Your task to perform on an android device: empty trash in google photos Image 0: 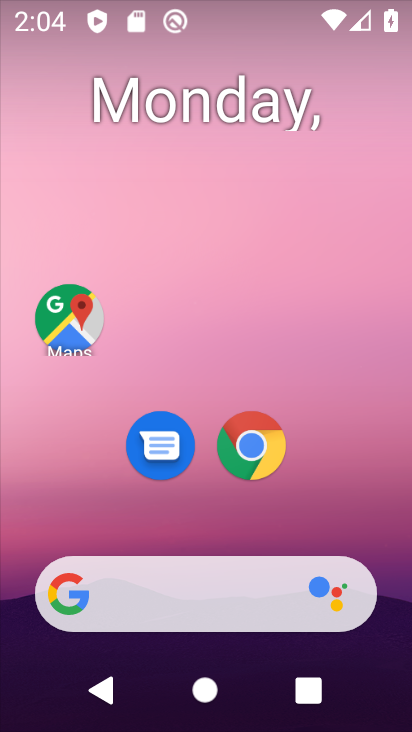
Step 0: drag from (359, 507) to (272, 23)
Your task to perform on an android device: empty trash in google photos Image 1: 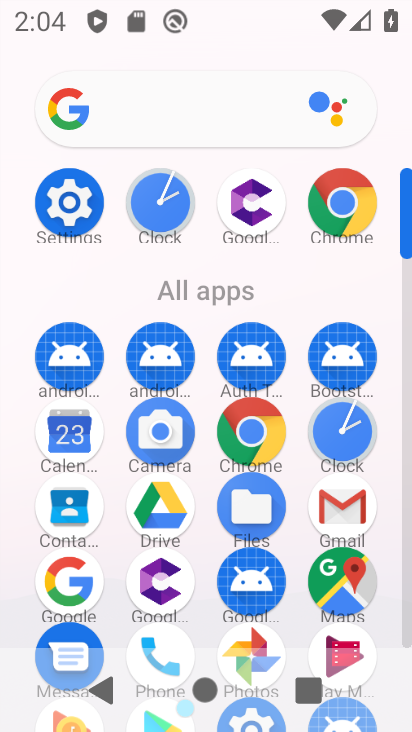
Step 1: drag from (15, 606) to (35, 189)
Your task to perform on an android device: empty trash in google photos Image 2: 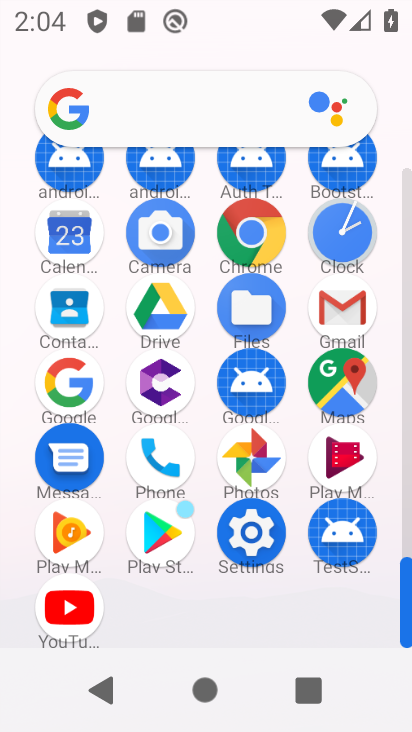
Step 2: click (249, 453)
Your task to perform on an android device: empty trash in google photos Image 3: 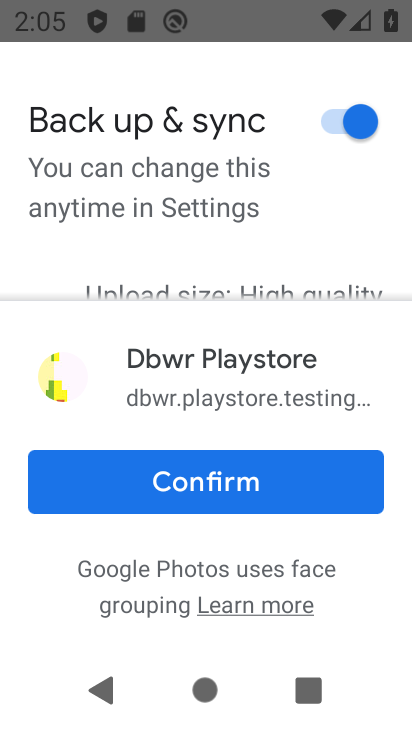
Step 3: click (276, 476)
Your task to perform on an android device: empty trash in google photos Image 4: 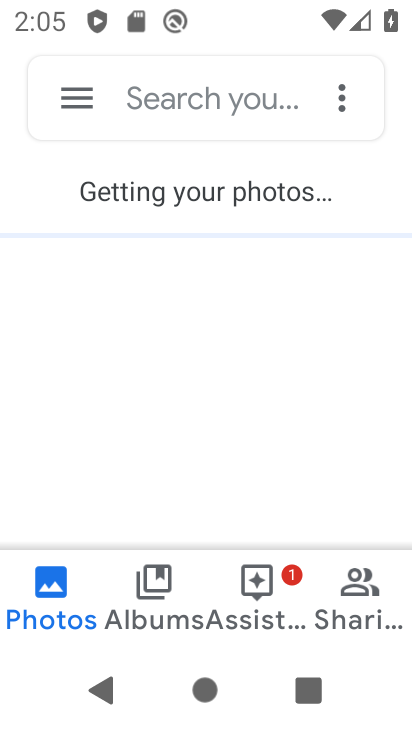
Step 4: click (66, 95)
Your task to perform on an android device: empty trash in google photos Image 5: 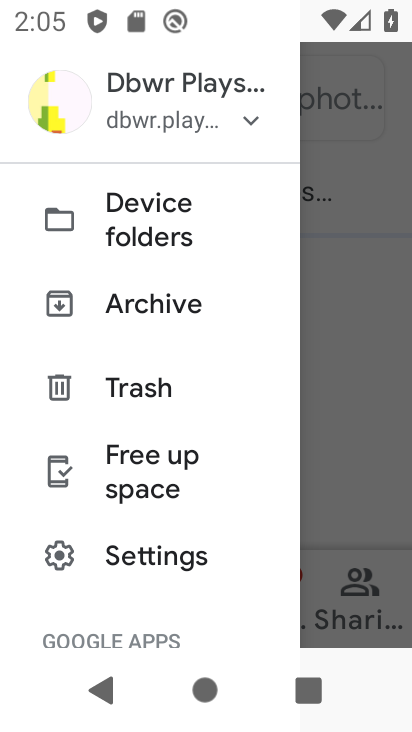
Step 5: drag from (189, 516) to (212, 229)
Your task to perform on an android device: empty trash in google photos Image 6: 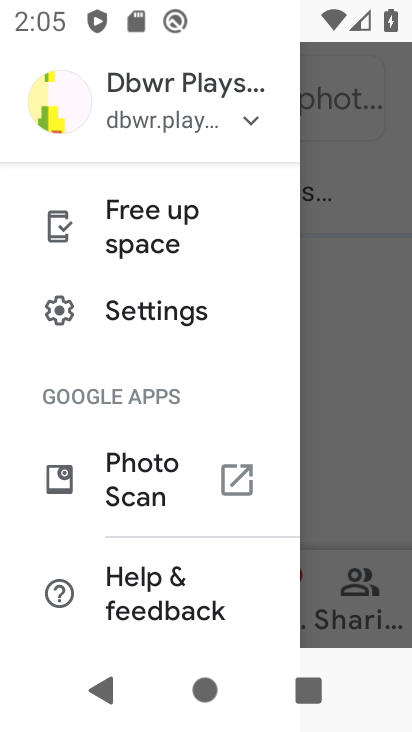
Step 6: drag from (212, 229) to (186, 464)
Your task to perform on an android device: empty trash in google photos Image 7: 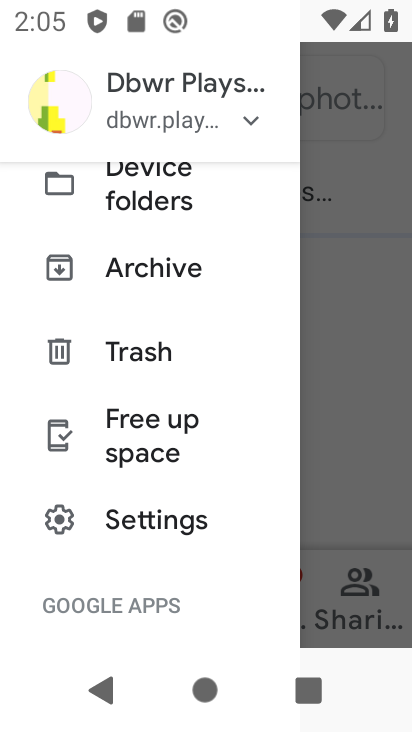
Step 7: click (162, 356)
Your task to perform on an android device: empty trash in google photos Image 8: 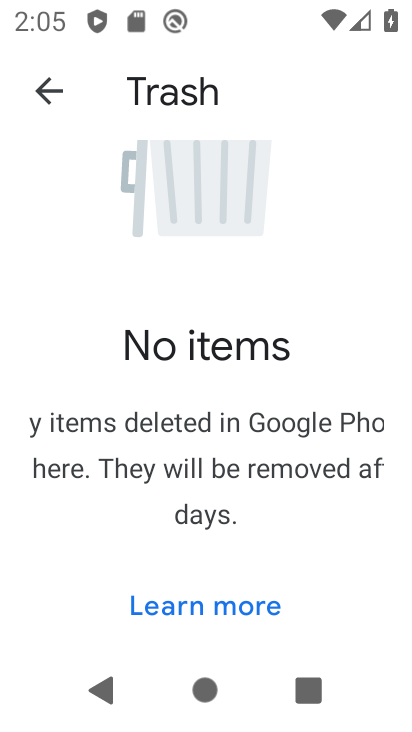
Step 8: task complete